Your task to perform on an android device: turn on translation in the chrome app Image 0: 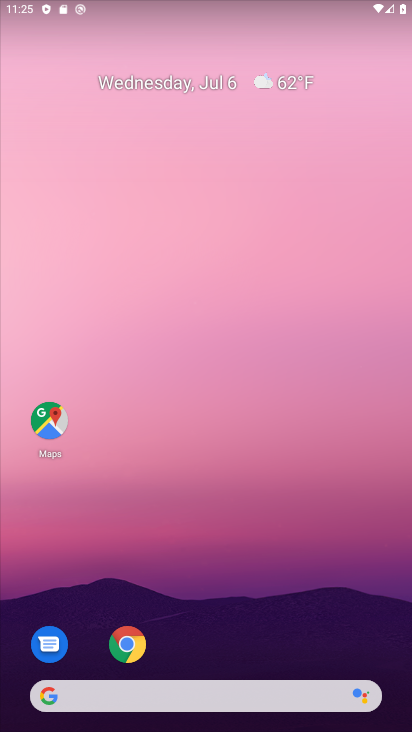
Step 0: drag from (232, 626) to (253, 99)
Your task to perform on an android device: turn on translation in the chrome app Image 1: 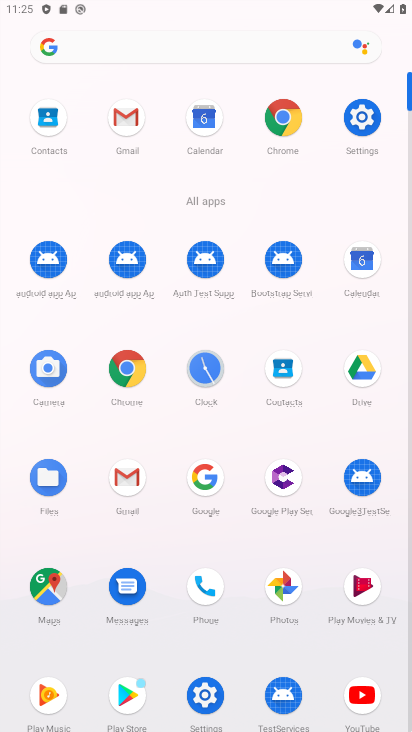
Step 1: click (139, 378)
Your task to perform on an android device: turn on translation in the chrome app Image 2: 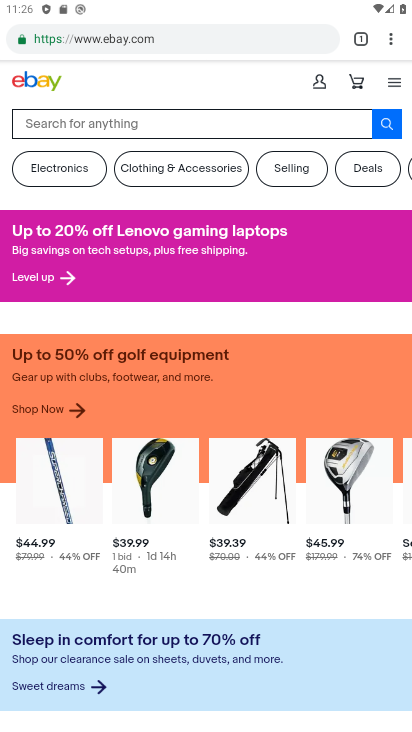
Step 2: click (139, 378)
Your task to perform on an android device: turn on translation in the chrome app Image 3: 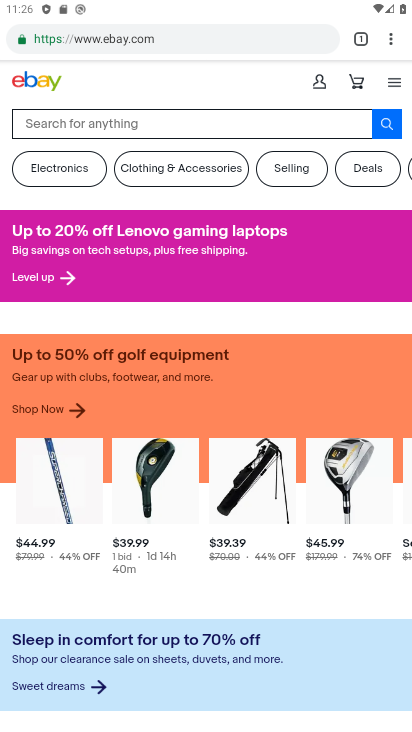
Step 3: click (395, 46)
Your task to perform on an android device: turn on translation in the chrome app Image 4: 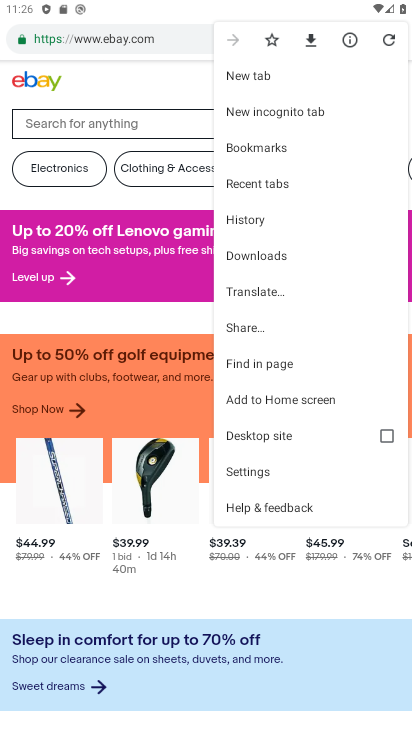
Step 4: click (272, 477)
Your task to perform on an android device: turn on translation in the chrome app Image 5: 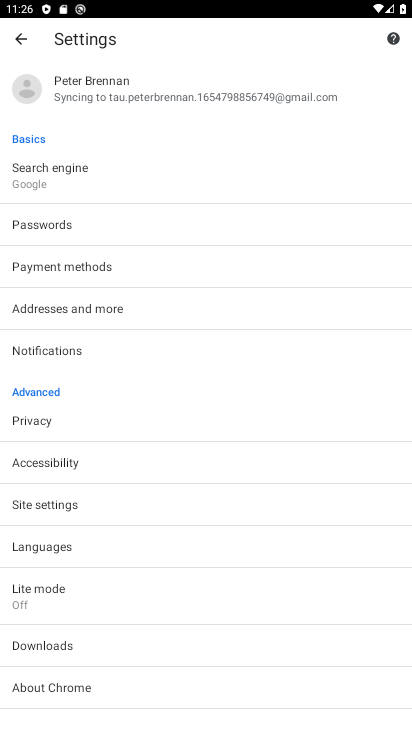
Step 5: click (120, 548)
Your task to perform on an android device: turn on translation in the chrome app Image 6: 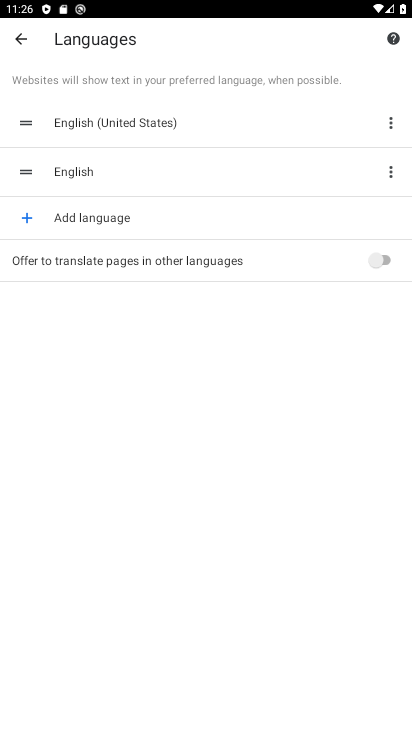
Step 6: click (366, 257)
Your task to perform on an android device: turn on translation in the chrome app Image 7: 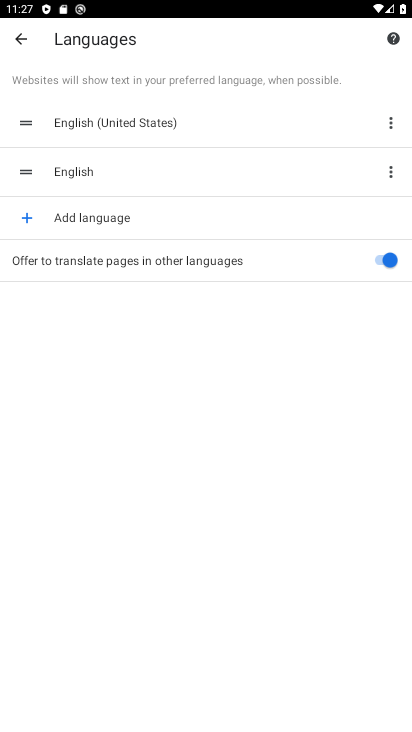
Step 7: task complete